Your task to perform on an android device: choose inbox layout in the gmail app Image 0: 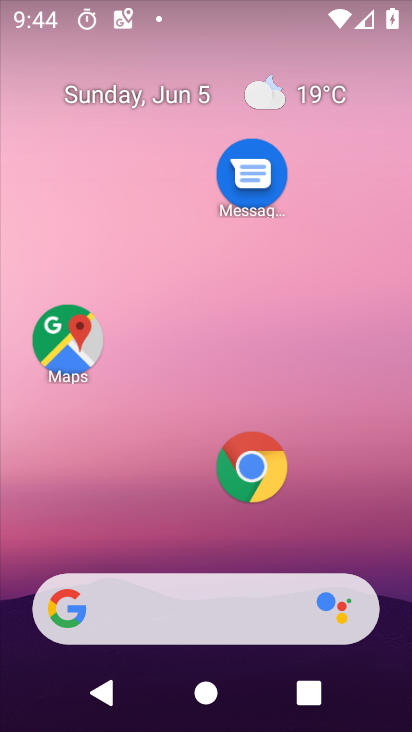
Step 0: drag from (205, 522) to (215, 139)
Your task to perform on an android device: choose inbox layout in the gmail app Image 1: 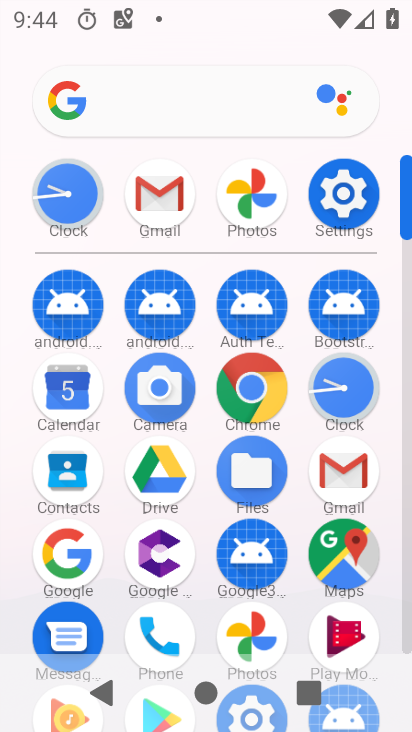
Step 1: click (336, 462)
Your task to perform on an android device: choose inbox layout in the gmail app Image 2: 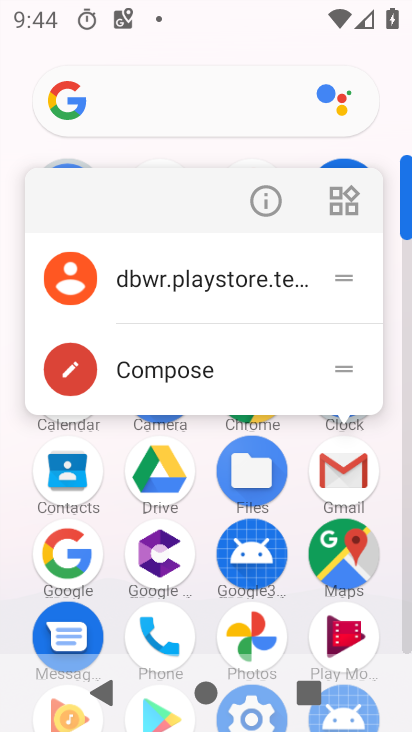
Step 2: click (279, 195)
Your task to perform on an android device: choose inbox layout in the gmail app Image 3: 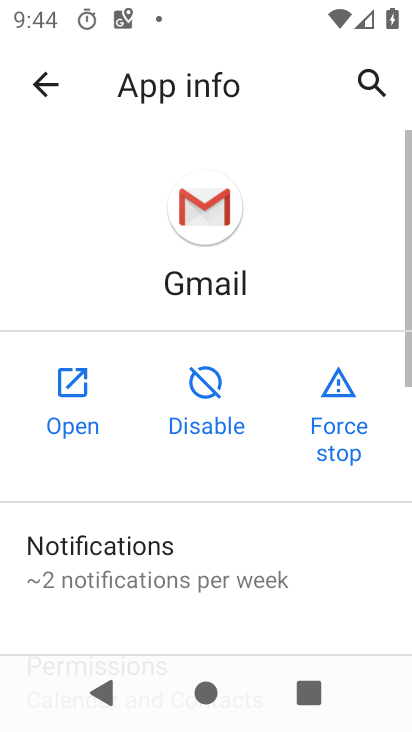
Step 3: drag from (218, 505) to (235, 189)
Your task to perform on an android device: choose inbox layout in the gmail app Image 4: 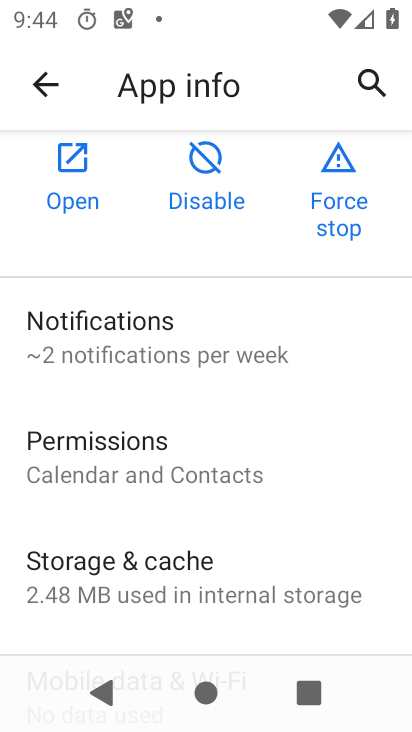
Step 4: click (84, 200)
Your task to perform on an android device: choose inbox layout in the gmail app Image 5: 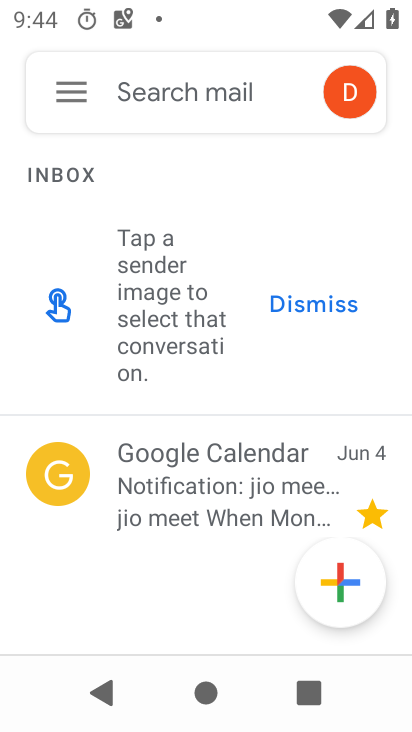
Step 5: click (72, 101)
Your task to perform on an android device: choose inbox layout in the gmail app Image 6: 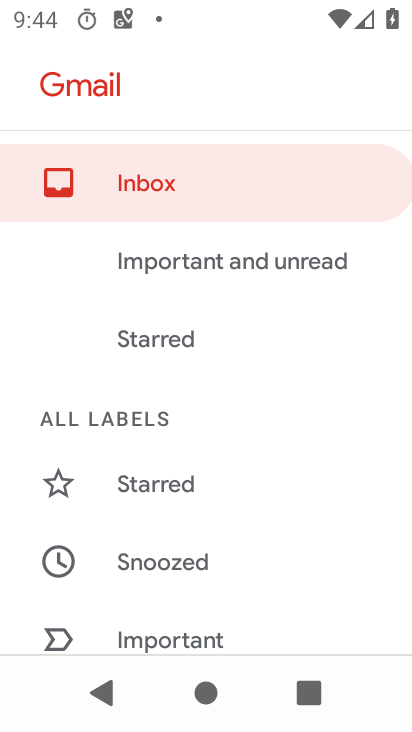
Step 6: click (212, 199)
Your task to perform on an android device: choose inbox layout in the gmail app Image 7: 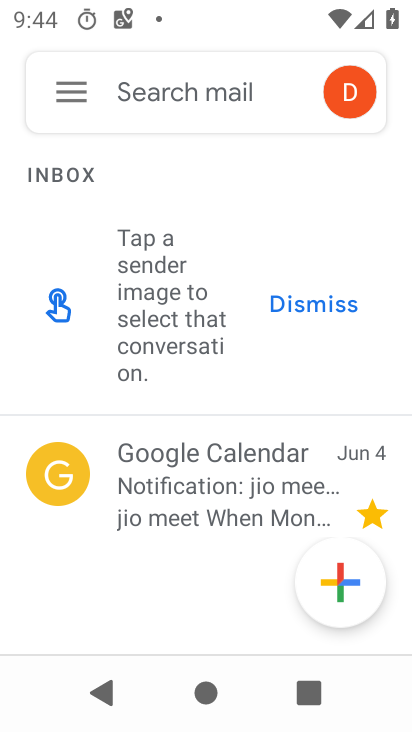
Step 7: task complete